Your task to perform on an android device: turn on airplane mode Image 0: 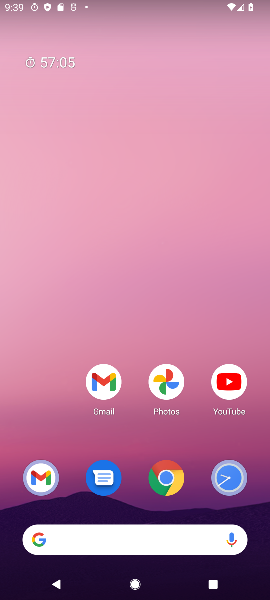
Step 0: press home button
Your task to perform on an android device: turn on airplane mode Image 1: 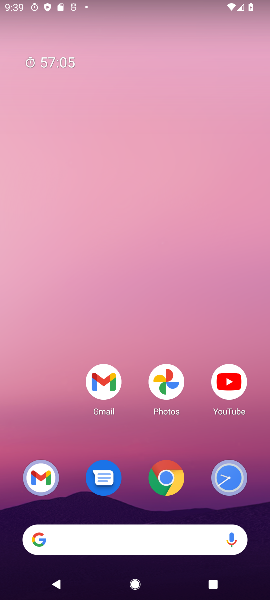
Step 1: press home button
Your task to perform on an android device: turn on airplane mode Image 2: 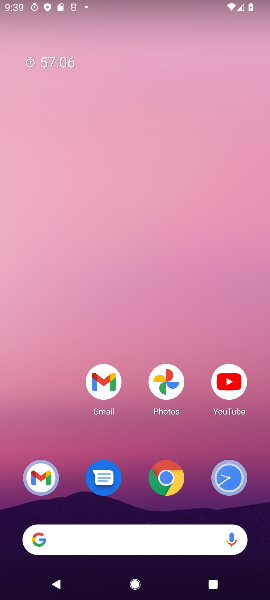
Step 2: press home button
Your task to perform on an android device: turn on airplane mode Image 3: 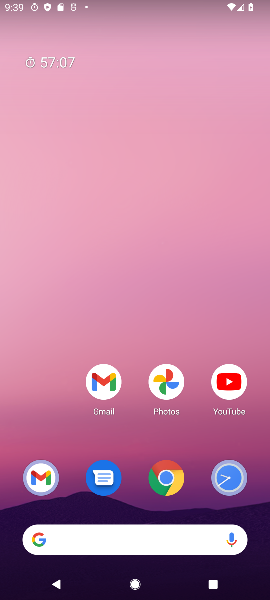
Step 3: drag from (114, 512) to (119, 28)
Your task to perform on an android device: turn on airplane mode Image 4: 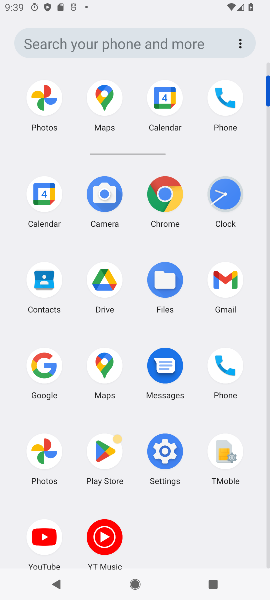
Step 4: drag from (118, 2) to (127, 133)
Your task to perform on an android device: turn on airplane mode Image 5: 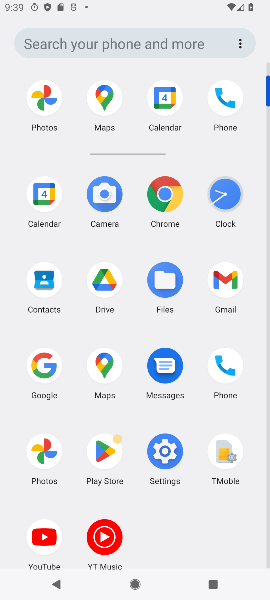
Step 5: drag from (241, 2) to (118, 591)
Your task to perform on an android device: turn on airplane mode Image 6: 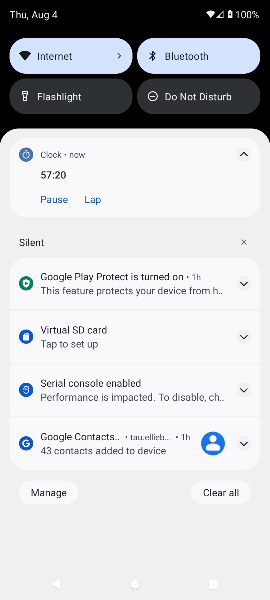
Step 6: drag from (132, 83) to (55, 599)
Your task to perform on an android device: turn on airplane mode Image 7: 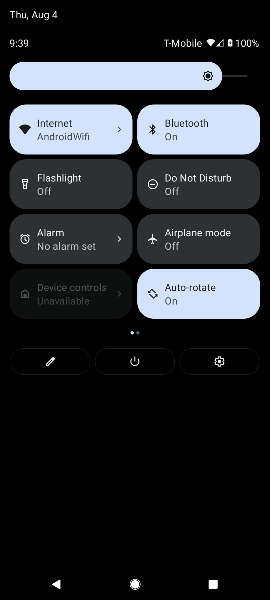
Step 7: click (172, 233)
Your task to perform on an android device: turn on airplane mode Image 8: 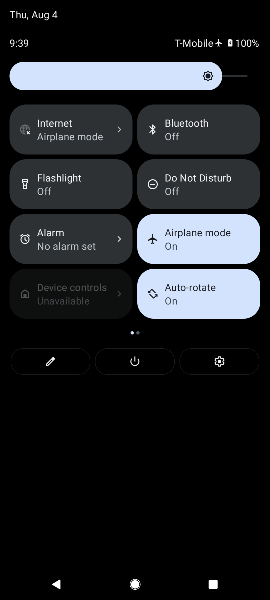
Step 8: task complete